Your task to perform on an android device: What is the news today? Image 0: 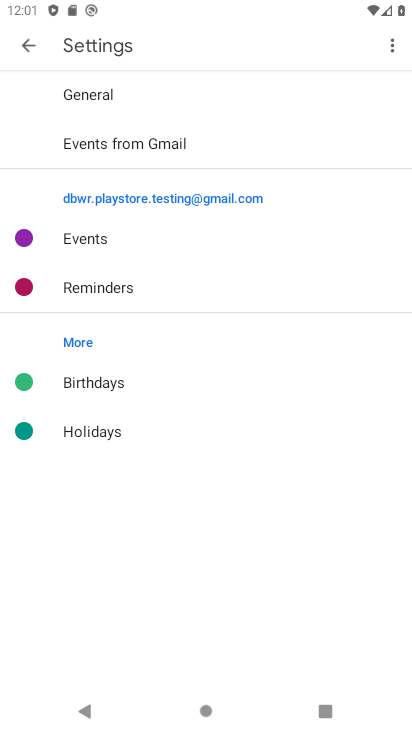
Step 0: press home button
Your task to perform on an android device: What is the news today? Image 1: 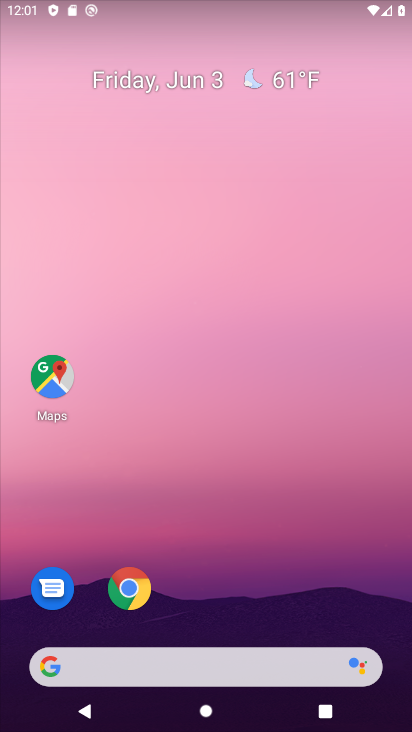
Step 1: drag from (268, 607) to (237, 68)
Your task to perform on an android device: What is the news today? Image 2: 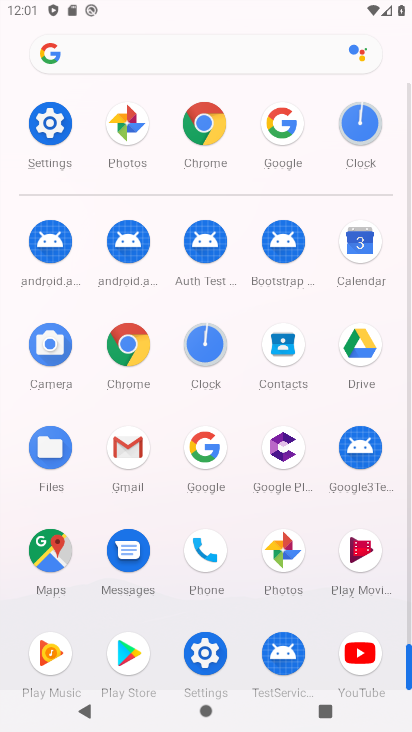
Step 2: click (194, 455)
Your task to perform on an android device: What is the news today? Image 3: 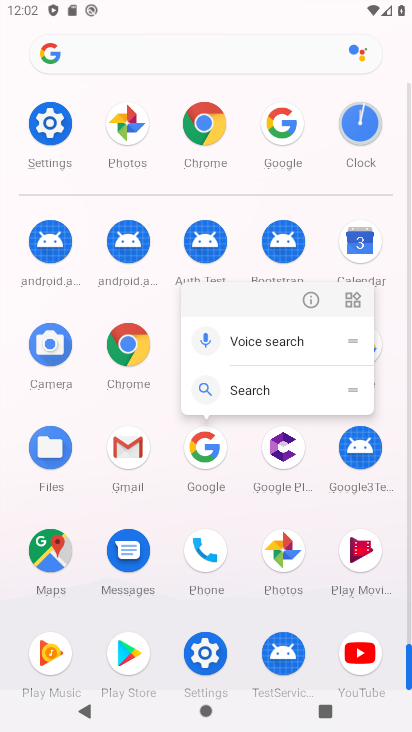
Step 3: click (201, 458)
Your task to perform on an android device: What is the news today? Image 4: 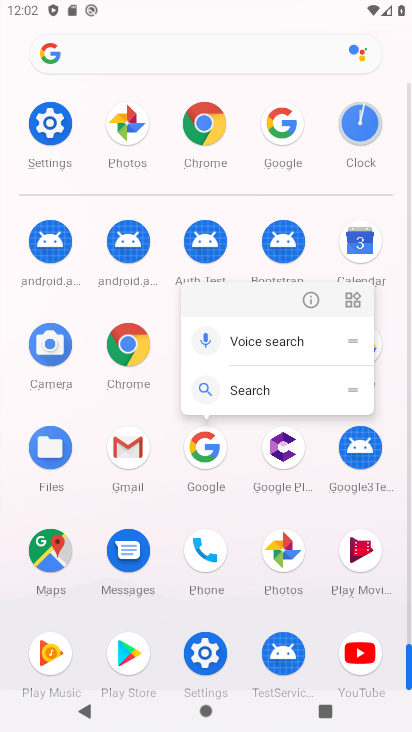
Step 4: click (201, 452)
Your task to perform on an android device: What is the news today? Image 5: 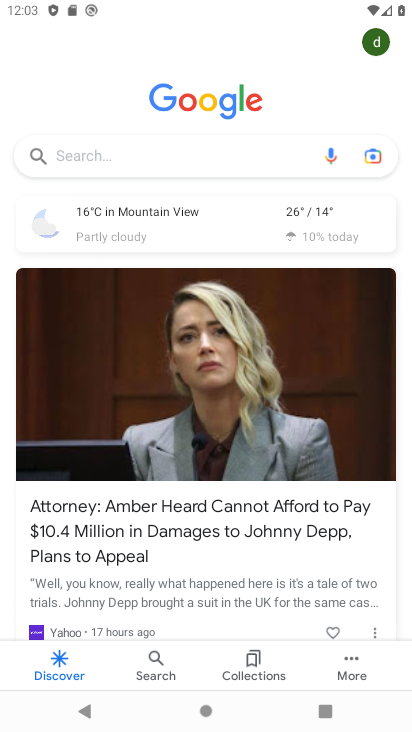
Step 5: task complete